Your task to perform on an android device: Open the web browser Image 0: 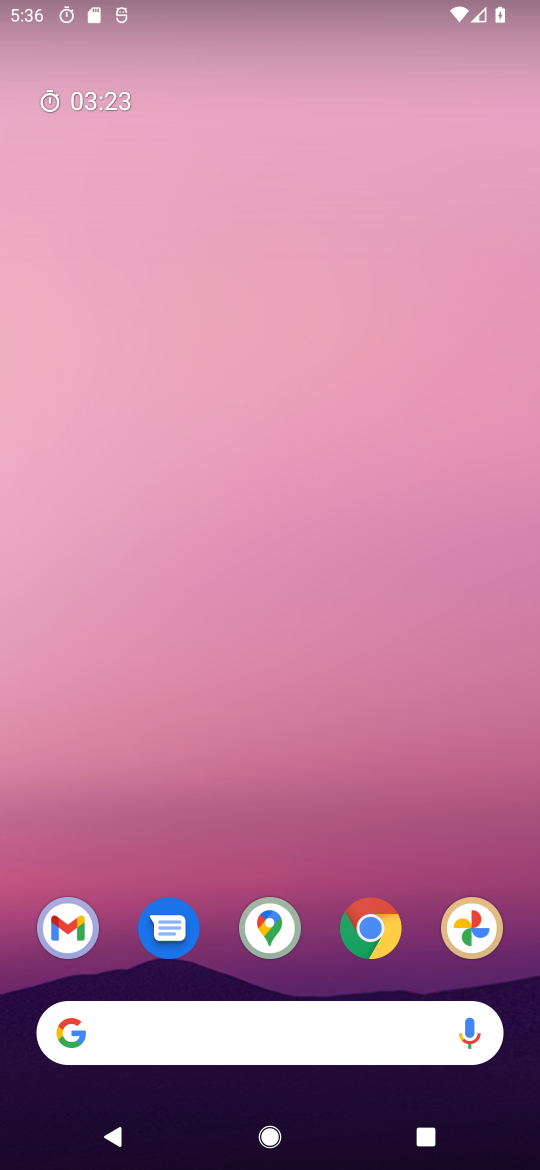
Step 0: click (355, 935)
Your task to perform on an android device: Open the web browser Image 1: 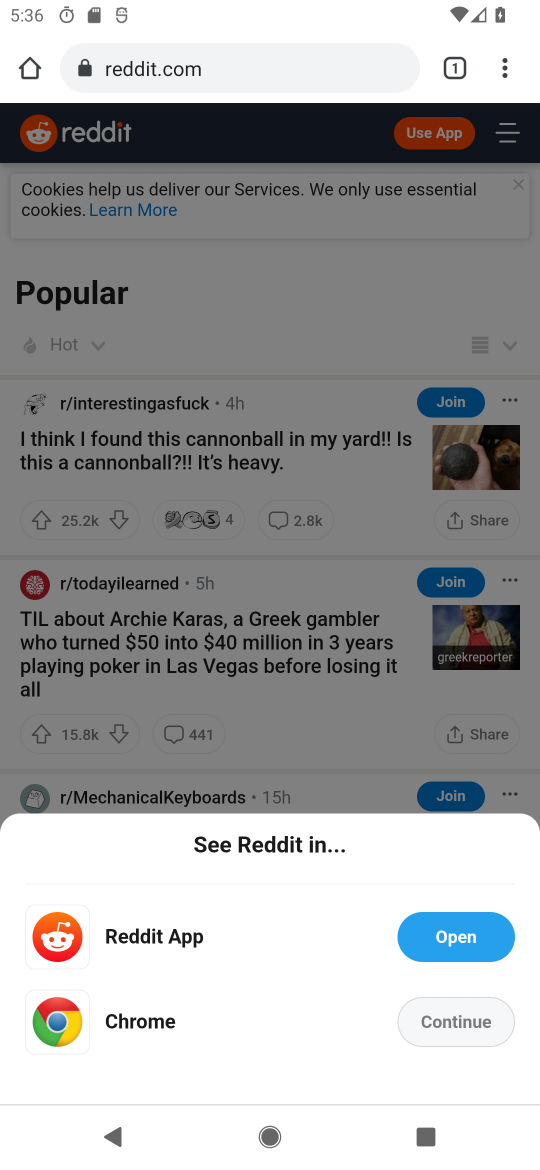
Step 1: click (487, 1005)
Your task to perform on an android device: Open the web browser Image 2: 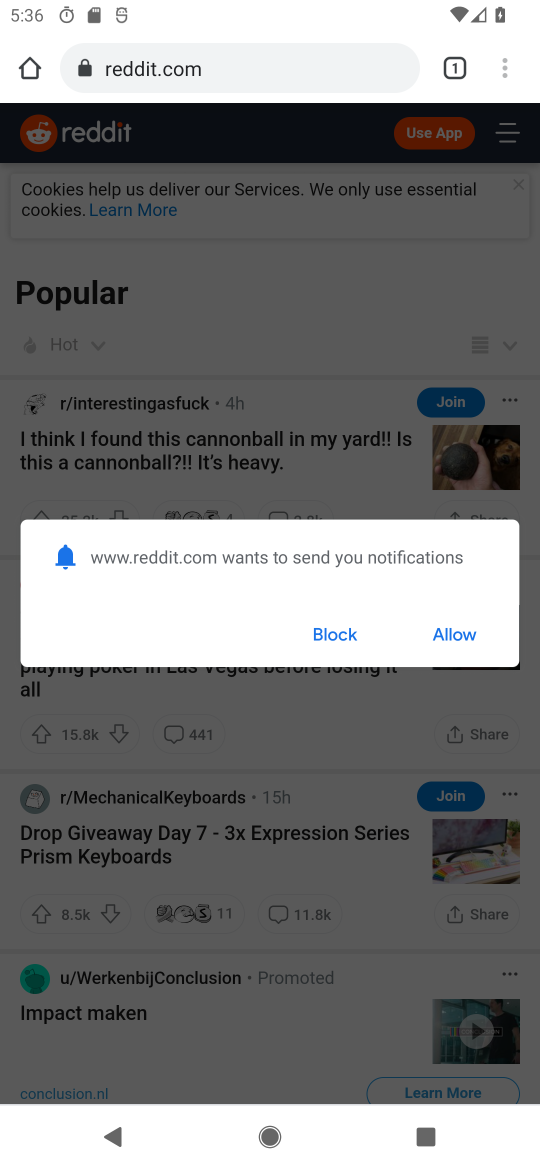
Step 2: task complete